Your task to perform on an android device: turn off notifications in google photos Image 0: 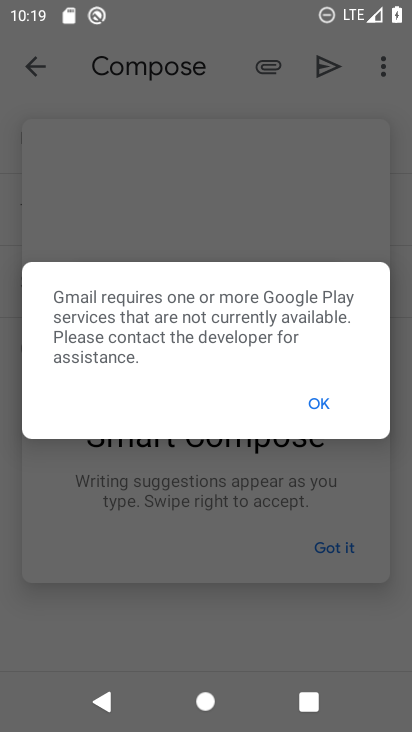
Step 0: press home button
Your task to perform on an android device: turn off notifications in google photos Image 1: 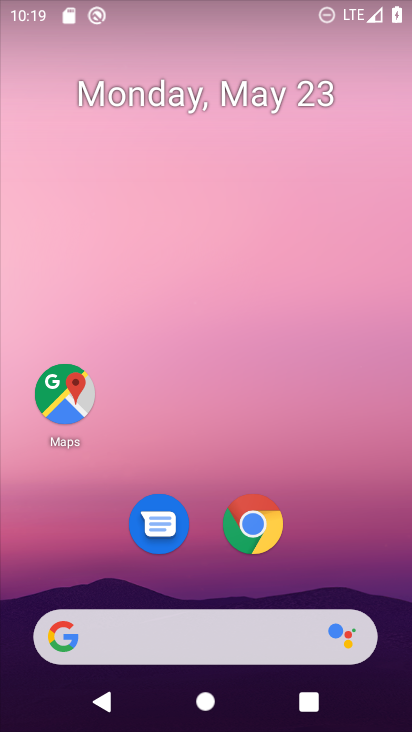
Step 1: drag from (203, 447) to (254, 6)
Your task to perform on an android device: turn off notifications in google photos Image 2: 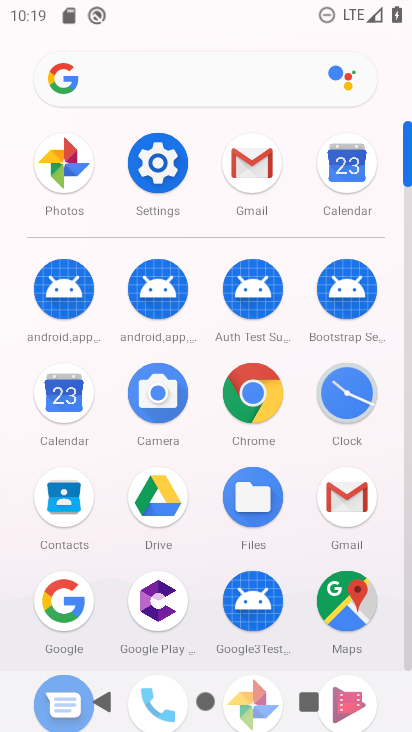
Step 2: click (68, 165)
Your task to perform on an android device: turn off notifications in google photos Image 3: 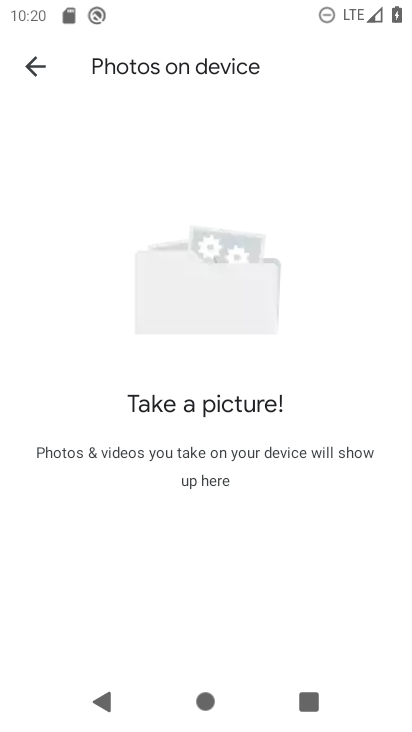
Step 3: click (35, 62)
Your task to perform on an android device: turn off notifications in google photos Image 4: 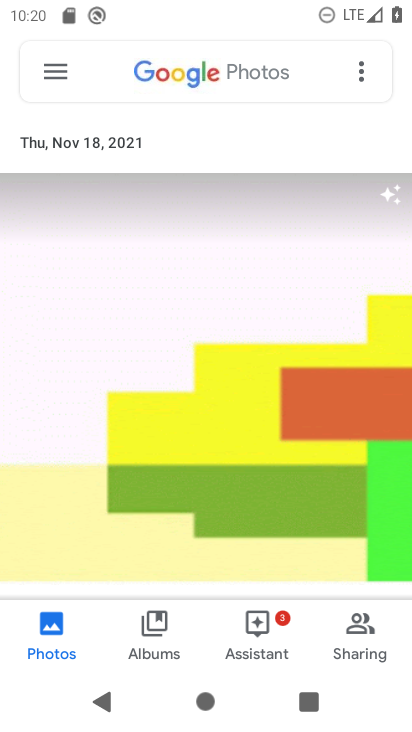
Step 4: click (46, 64)
Your task to perform on an android device: turn off notifications in google photos Image 5: 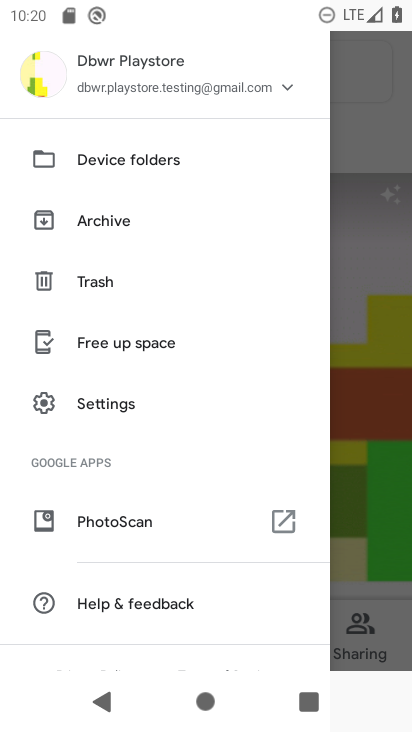
Step 5: click (95, 394)
Your task to perform on an android device: turn off notifications in google photos Image 6: 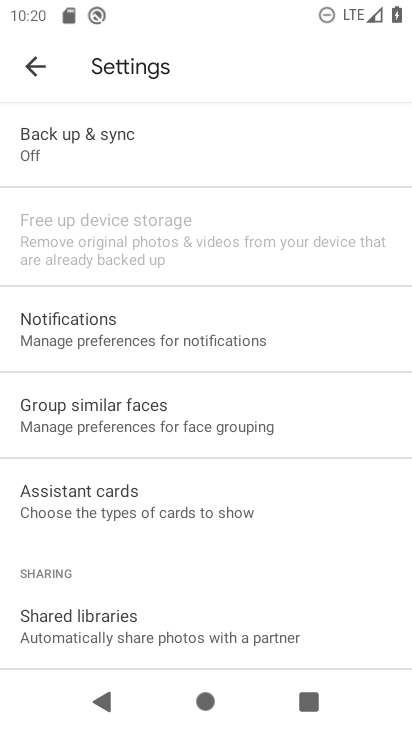
Step 6: click (206, 339)
Your task to perform on an android device: turn off notifications in google photos Image 7: 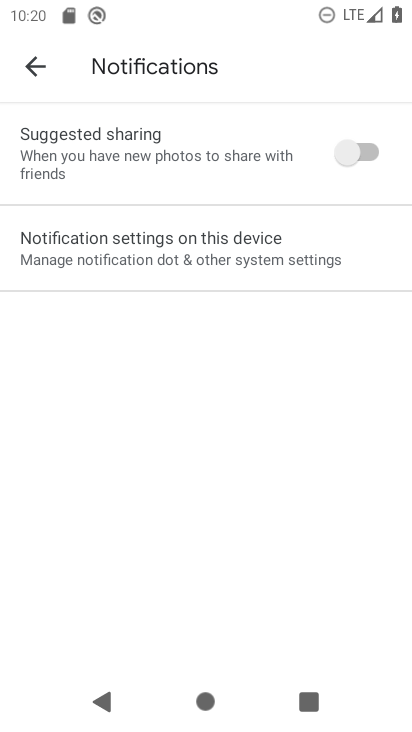
Step 7: click (239, 240)
Your task to perform on an android device: turn off notifications in google photos Image 8: 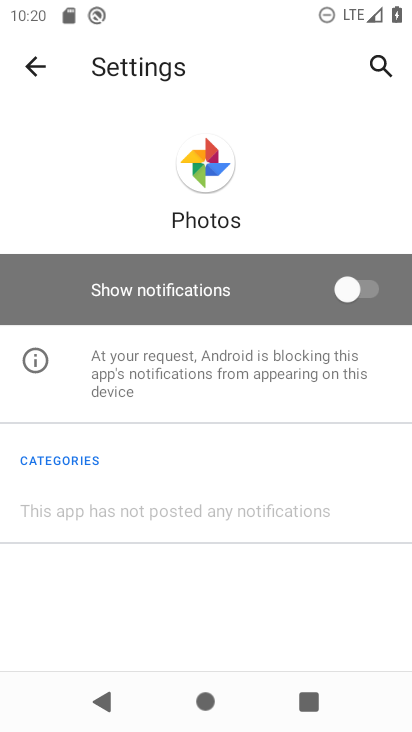
Step 8: click (347, 285)
Your task to perform on an android device: turn off notifications in google photos Image 9: 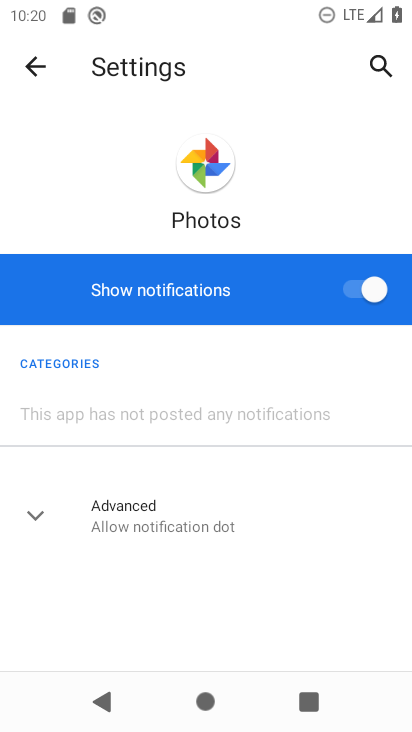
Step 9: click (358, 286)
Your task to perform on an android device: turn off notifications in google photos Image 10: 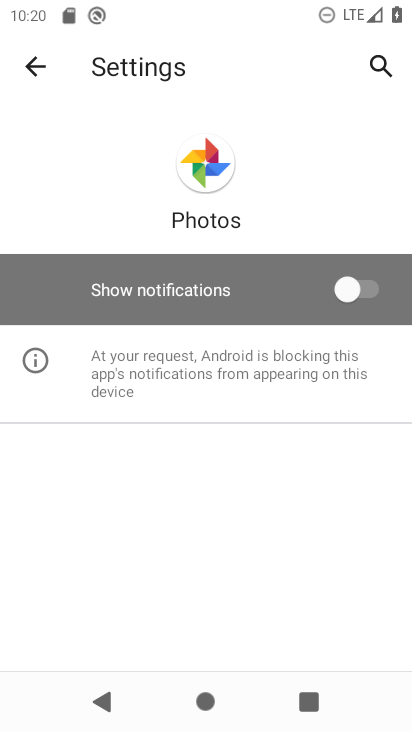
Step 10: task complete